Your task to perform on an android device: turn on airplane mode Image 0: 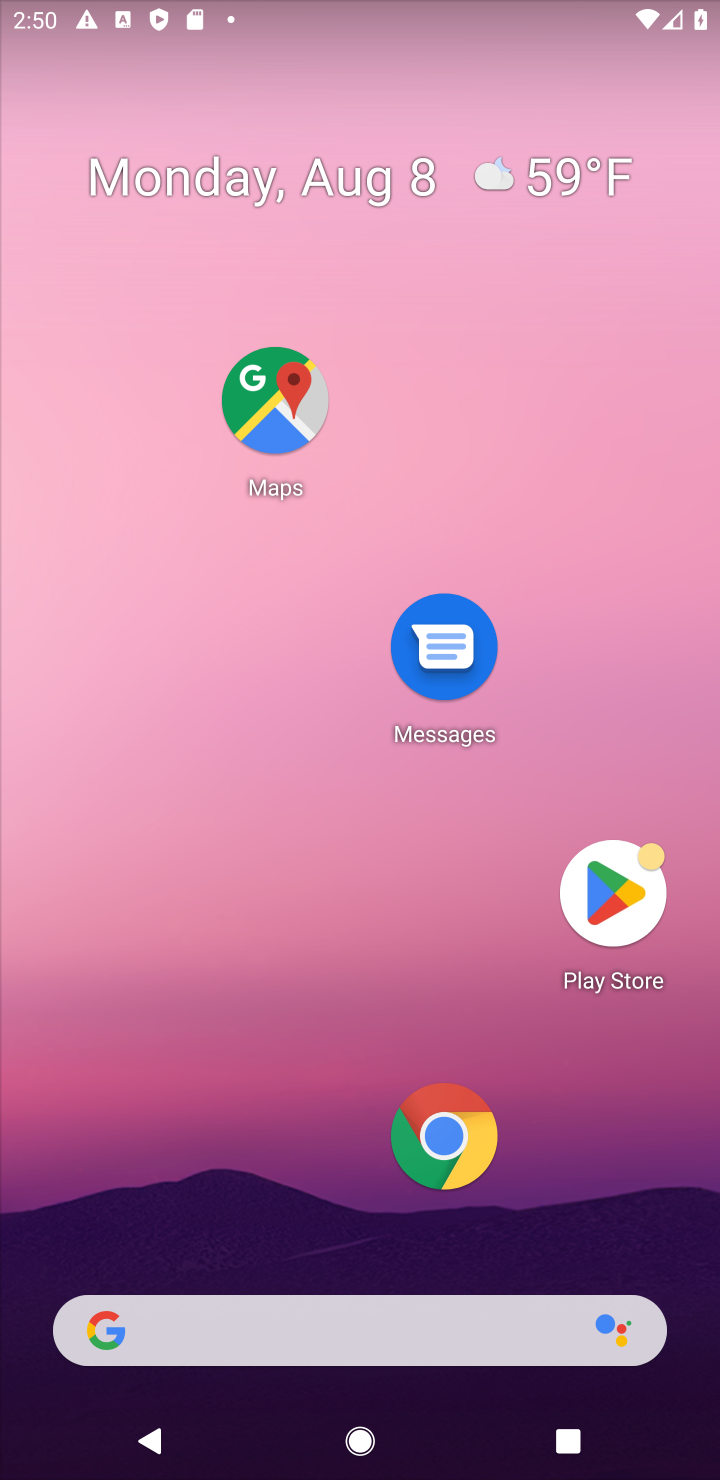
Step 0: click (473, 137)
Your task to perform on an android device: turn on airplane mode Image 1: 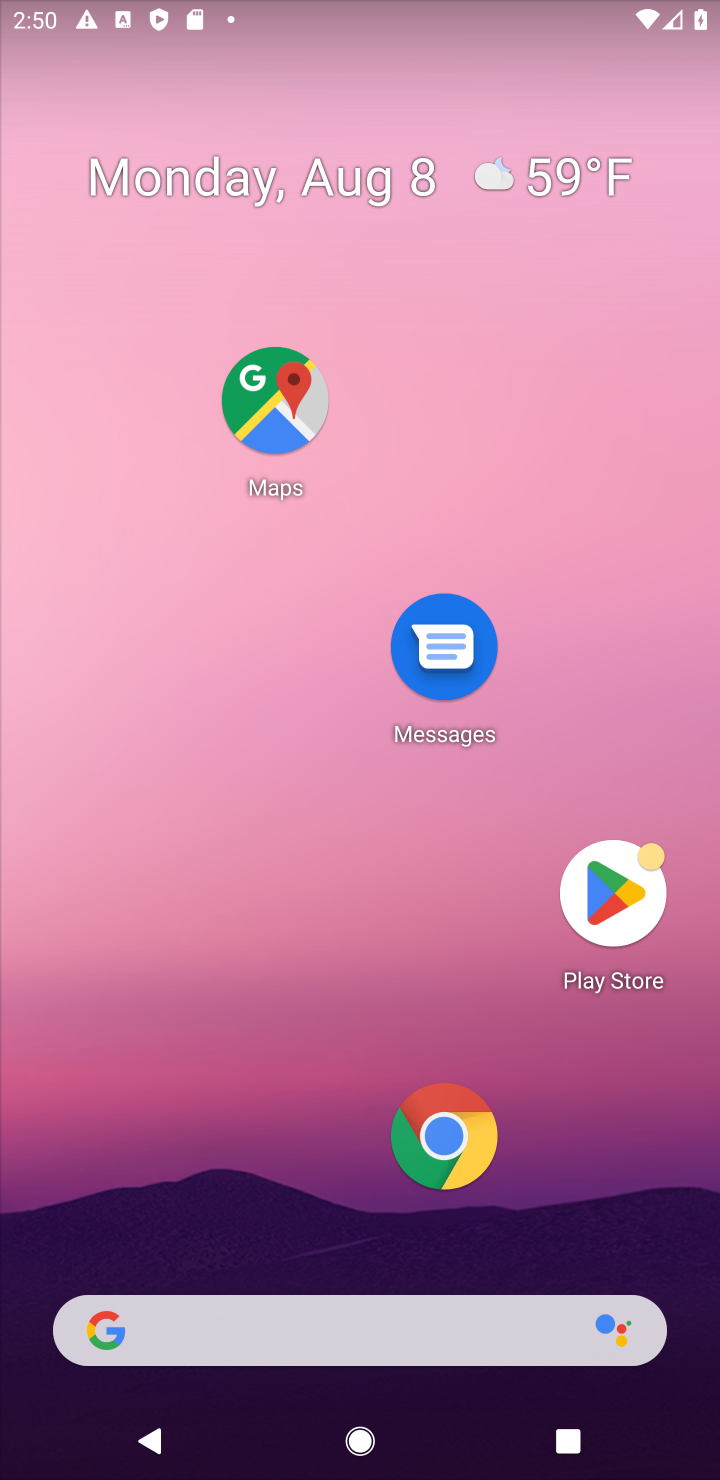
Step 1: drag from (93, 1383) to (376, 538)
Your task to perform on an android device: turn on airplane mode Image 2: 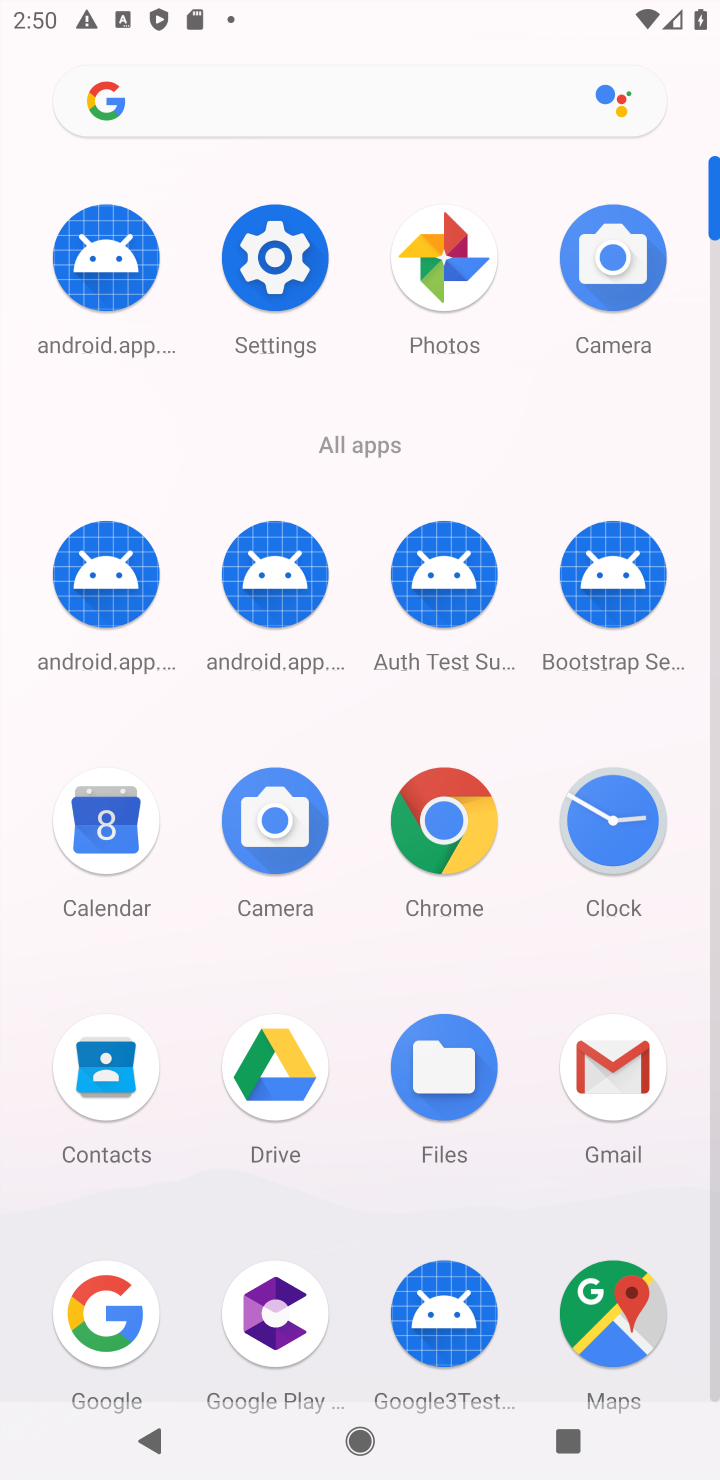
Step 2: click (290, 222)
Your task to perform on an android device: turn on airplane mode Image 3: 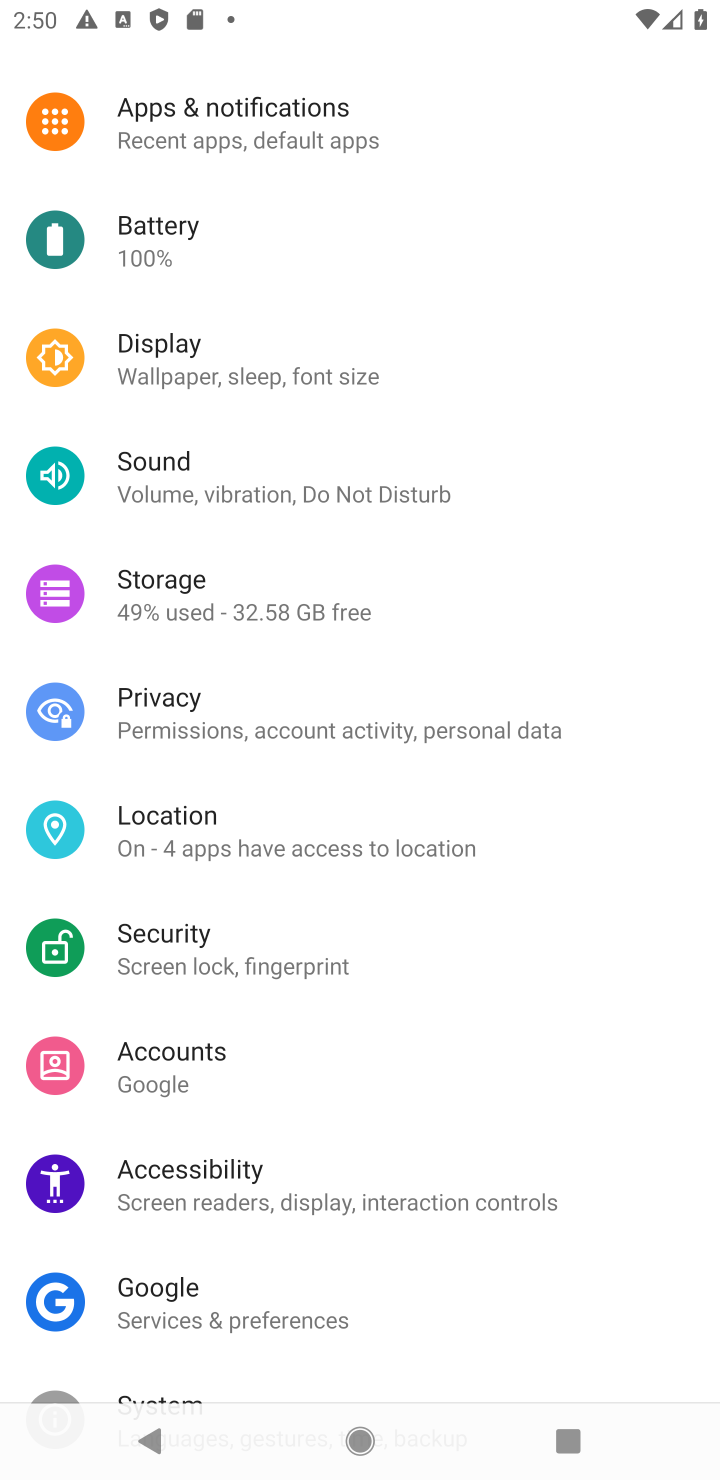
Step 3: drag from (494, 205) to (463, 709)
Your task to perform on an android device: turn on airplane mode Image 4: 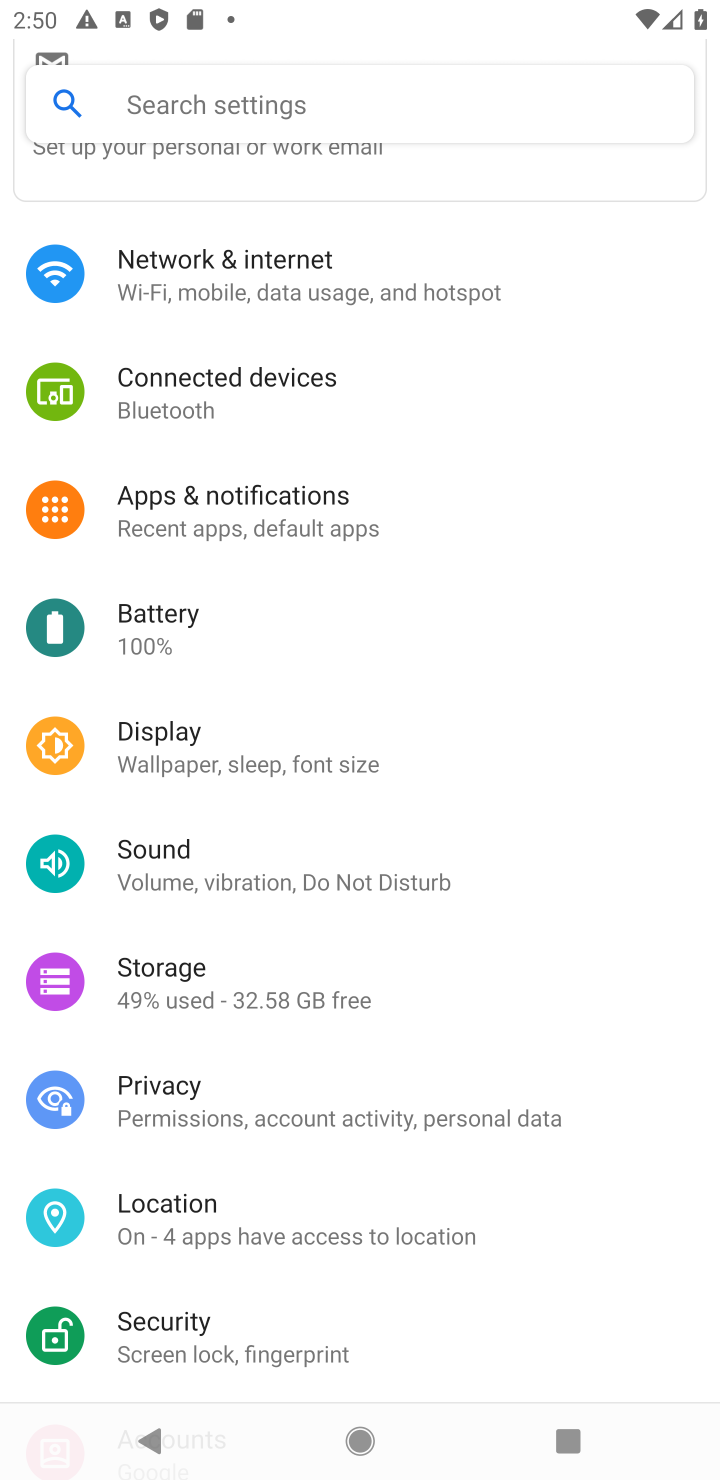
Step 4: click (292, 257)
Your task to perform on an android device: turn on airplane mode Image 5: 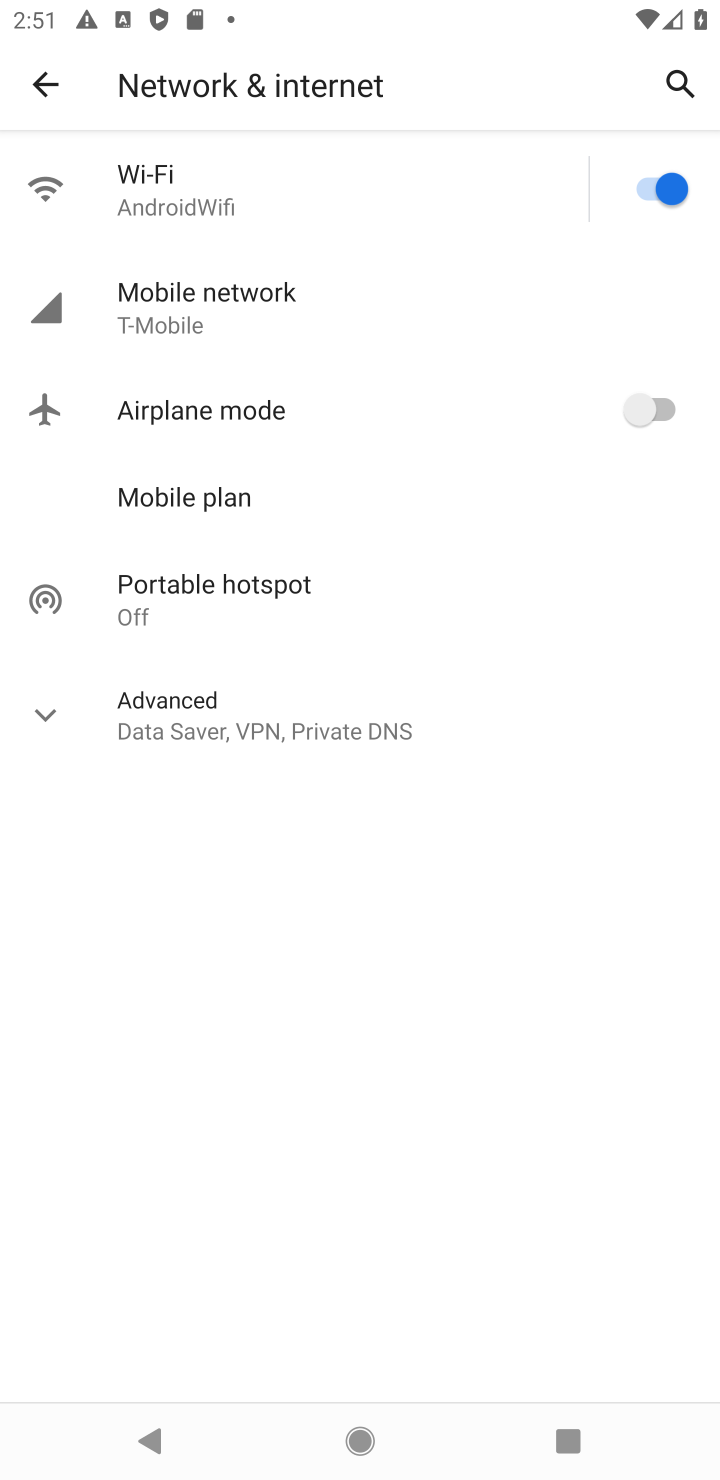
Step 5: click (275, 412)
Your task to perform on an android device: turn on airplane mode Image 6: 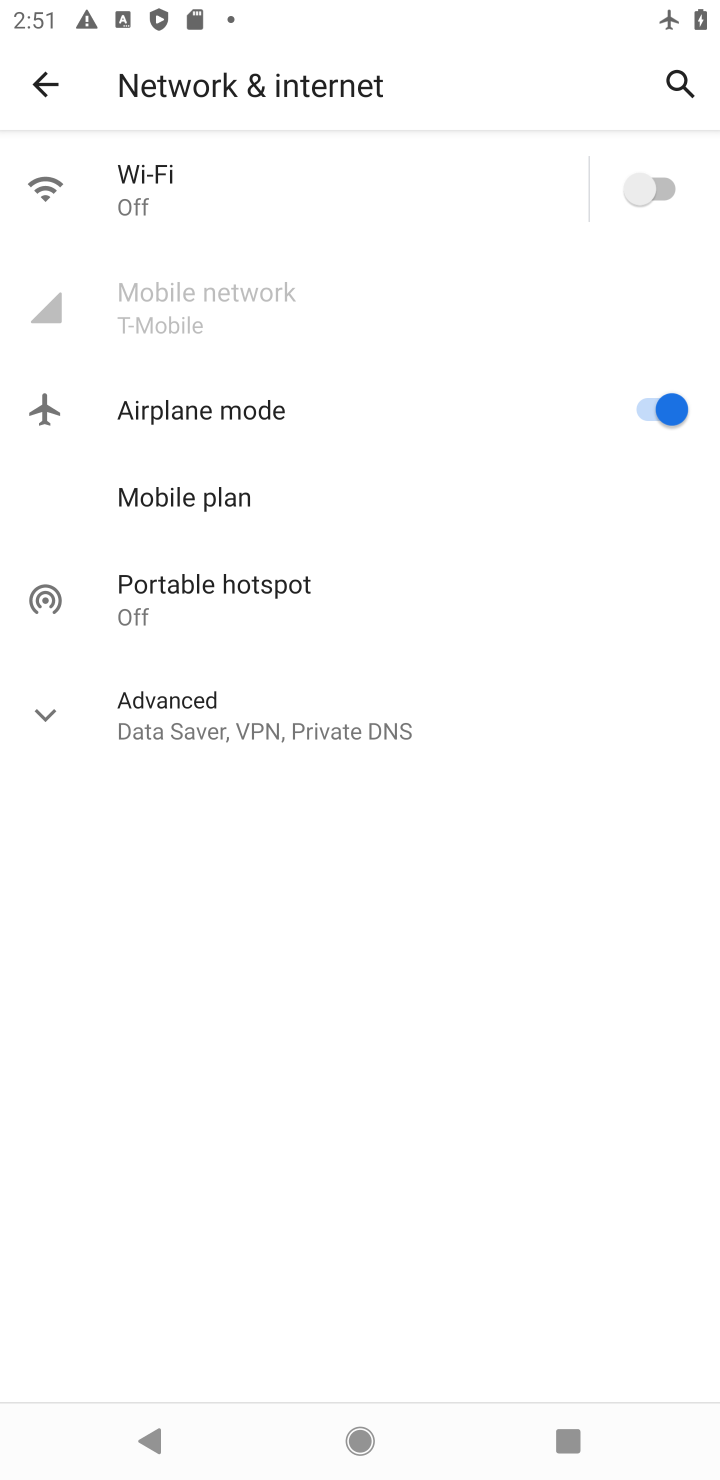
Step 6: task complete